Your task to perform on an android device: open wifi settings Image 0: 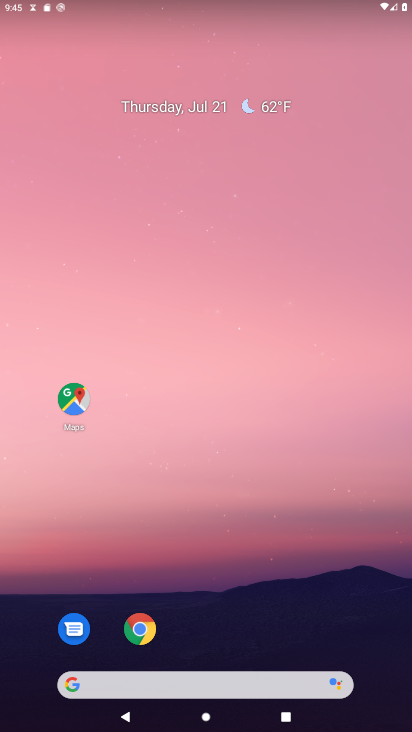
Step 0: drag from (210, 635) to (208, 116)
Your task to perform on an android device: open wifi settings Image 1: 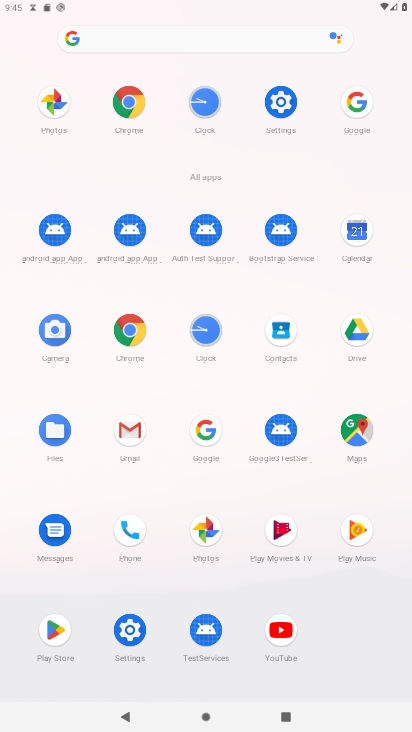
Step 1: click (285, 103)
Your task to perform on an android device: open wifi settings Image 2: 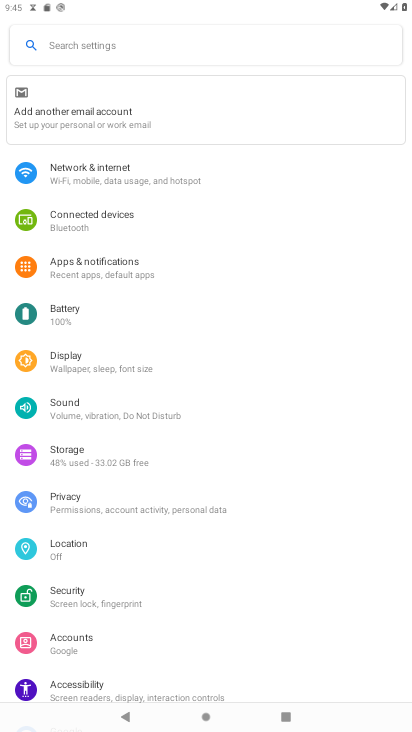
Step 2: click (111, 179)
Your task to perform on an android device: open wifi settings Image 3: 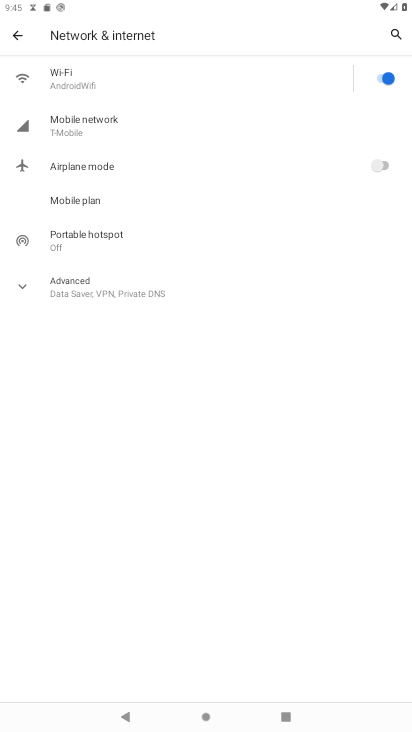
Step 3: click (77, 72)
Your task to perform on an android device: open wifi settings Image 4: 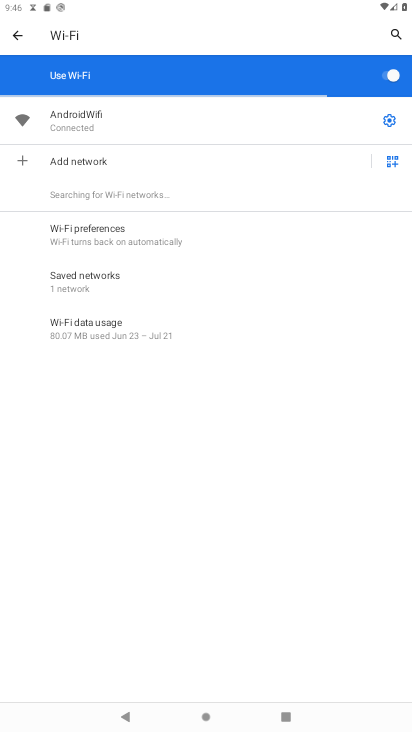
Step 4: task complete